Your task to perform on an android device: toggle location history Image 0: 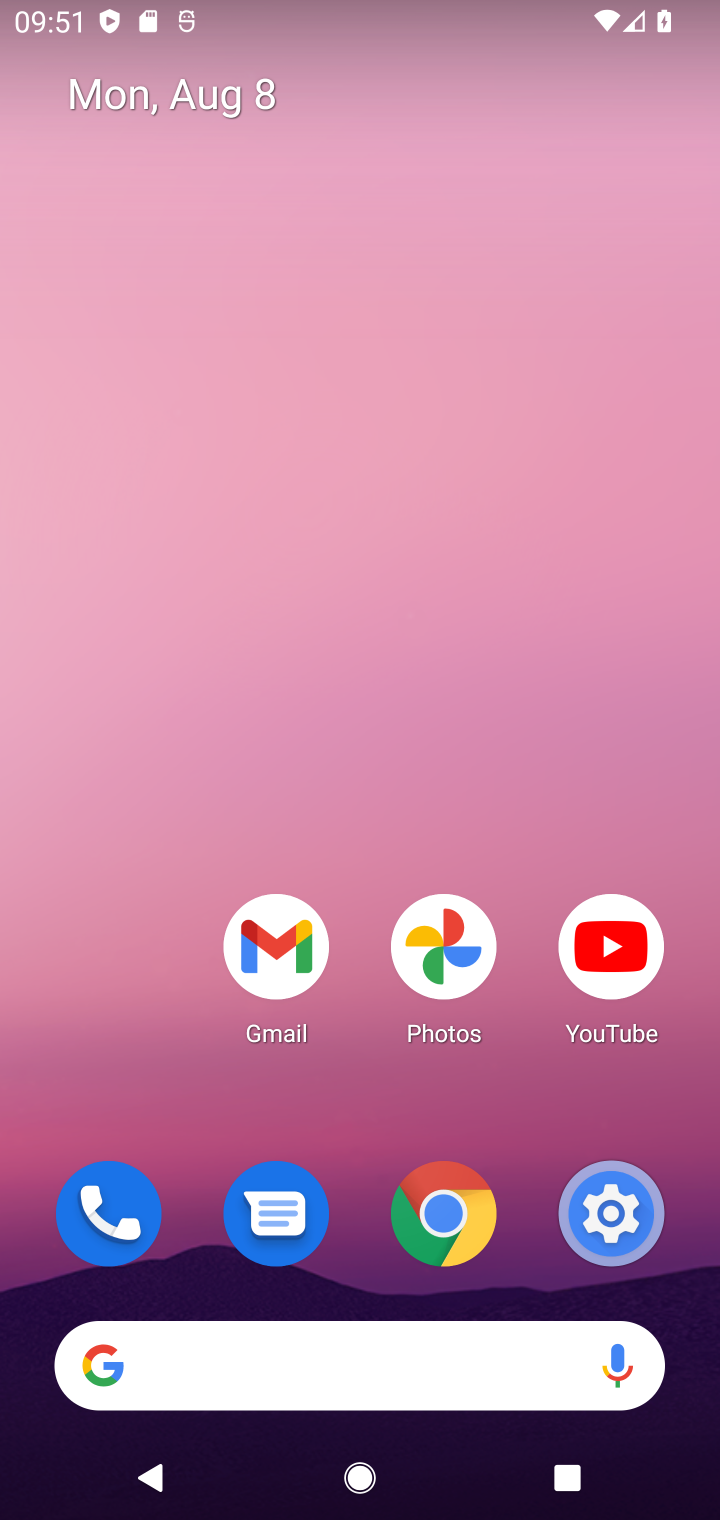
Step 0: drag from (417, 1111) to (482, 322)
Your task to perform on an android device: toggle location history Image 1: 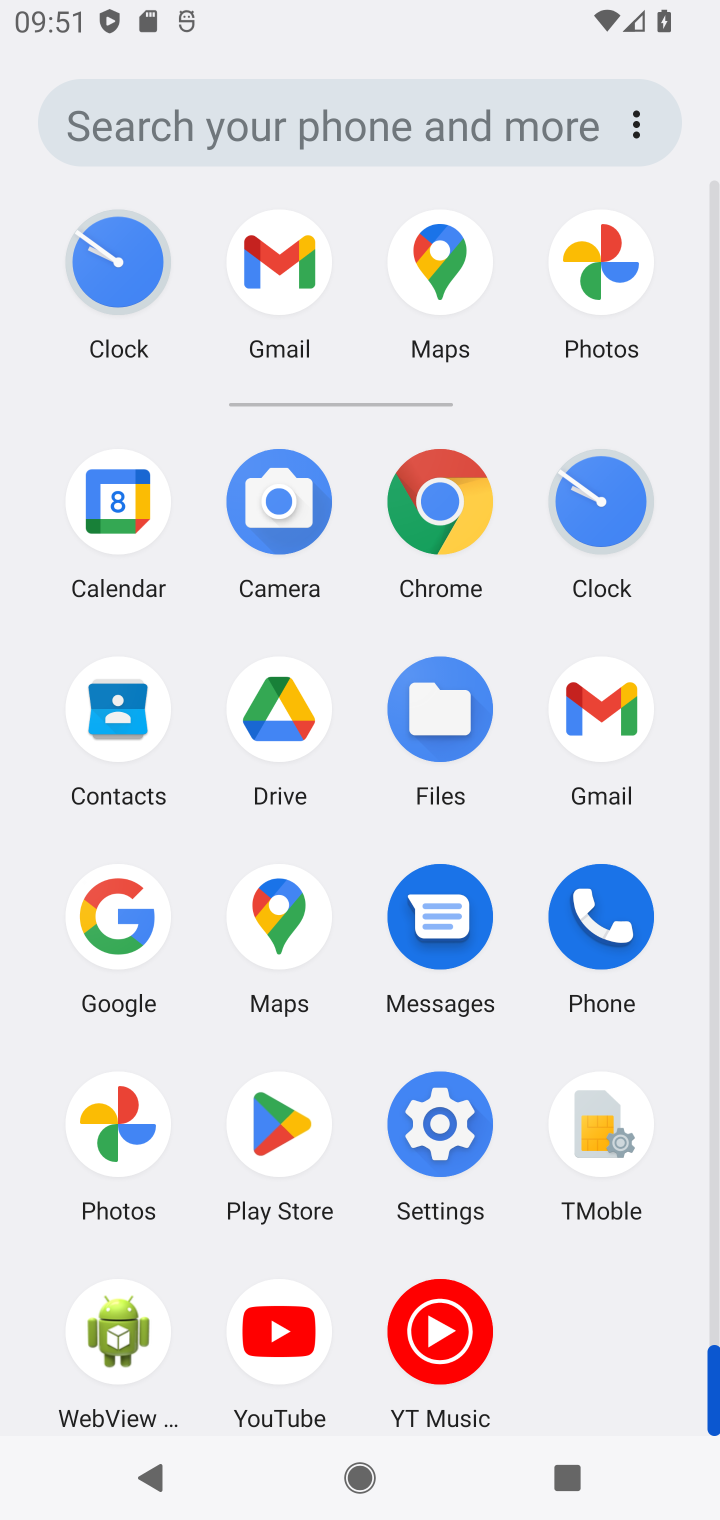
Step 1: click (452, 1150)
Your task to perform on an android device: toggle location history Image 2: 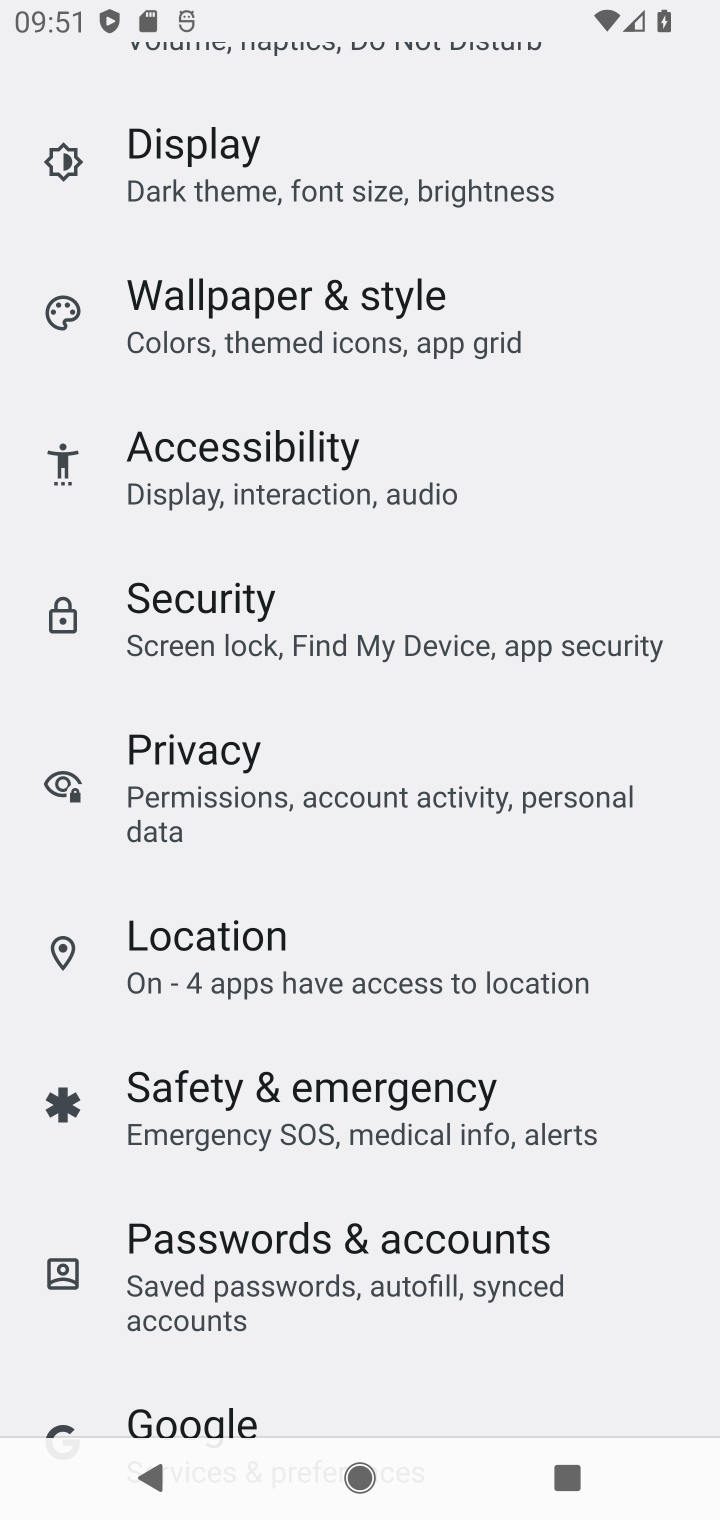
Step 2: click (282, 967)
Your task to perform on an android device: toggle location history Image 3: 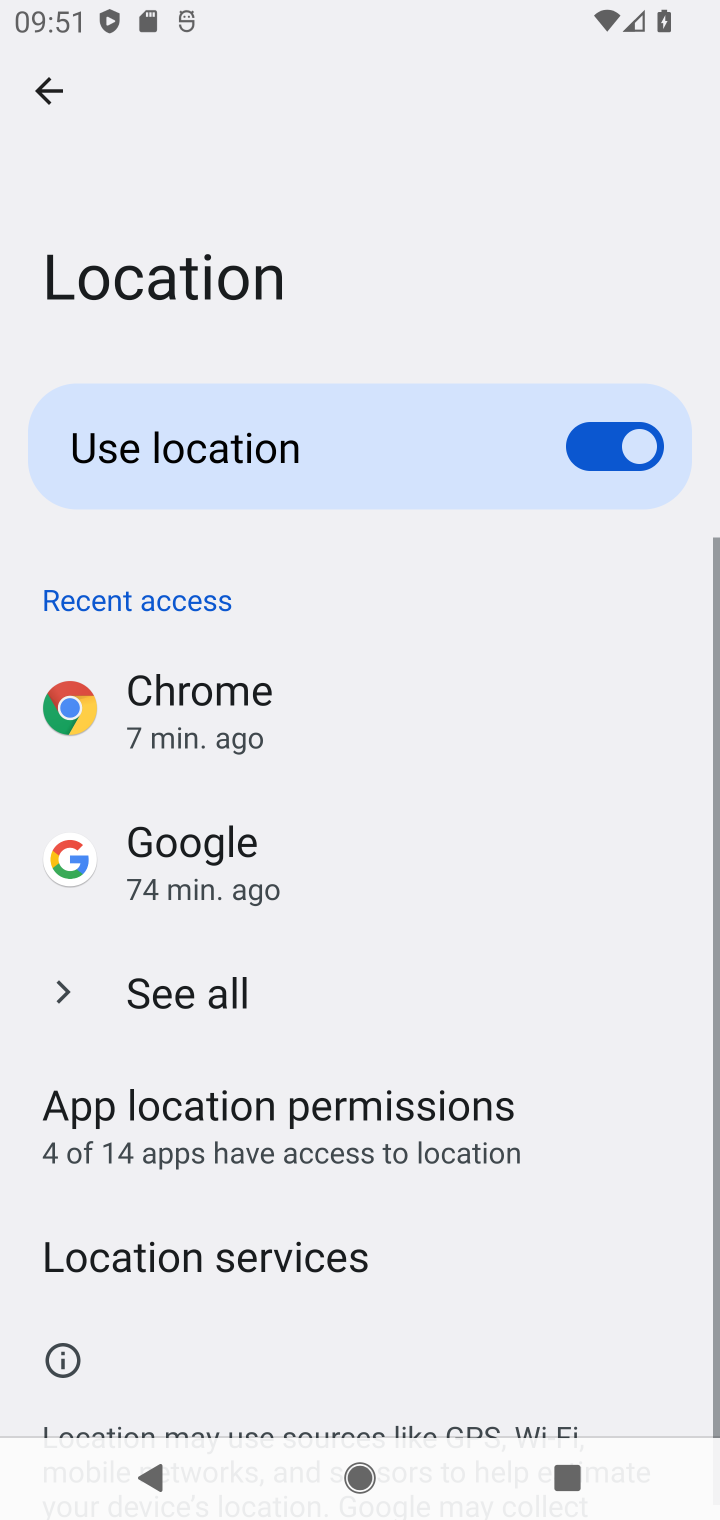
Step 3: task complete